Your task to perform on an android device: turn on sleep mode Image 0: 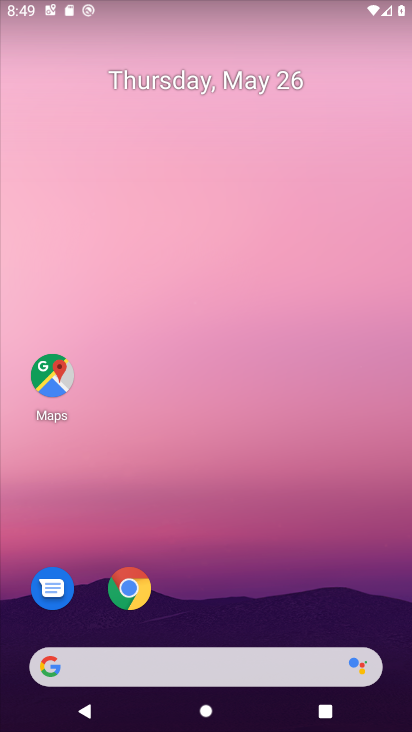
Step 0: drag from (248, 597) to (259, 64)
Your task to perform on an android device: turn on sleep mode Image 1: 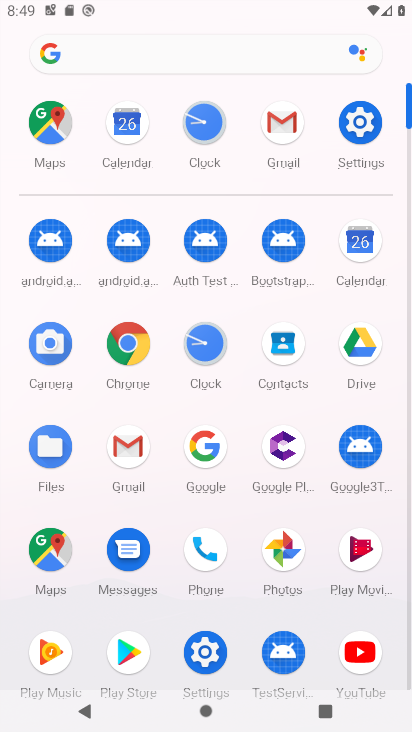
Step 1: click (350, 124)
Your task to perform on an android device: turn on sleep mode Image 2: 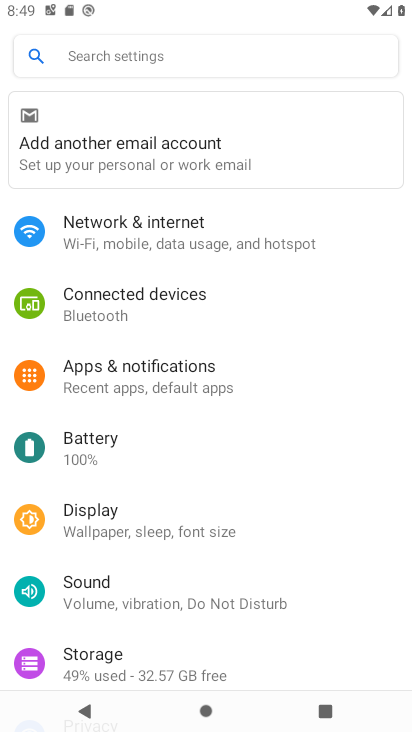
Step 2: click (134, 524)
Your task to perform on an android device: turn on sleep mode Image 3: 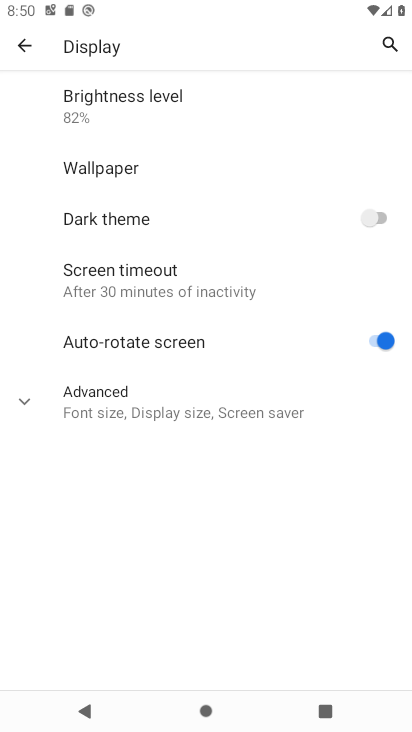
Step 3: click (159, 409)
Your task to perform on an android device: turn on sleep mode Image 4: 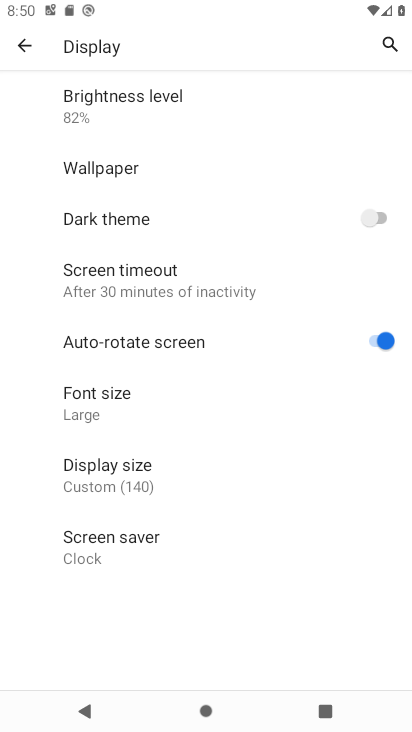
Step 4: task complete